Your task to perform on an android device: Is it going to rain this weekend? Image 0: 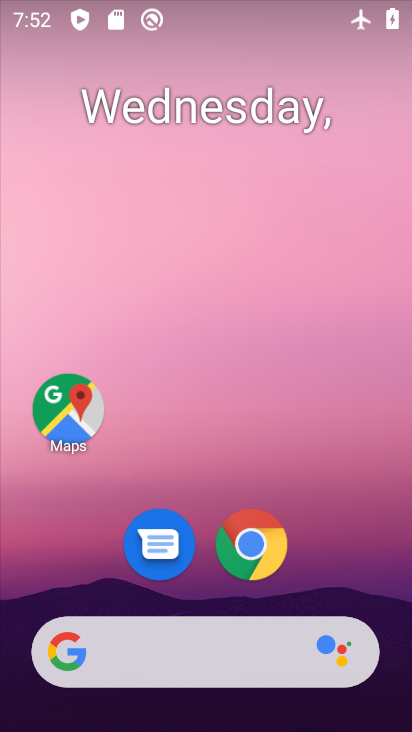
Step 0: drag from (221, 720) to (225, 212)
Your task to perform on an android device: Is it going to rain this weekend? Image 1: 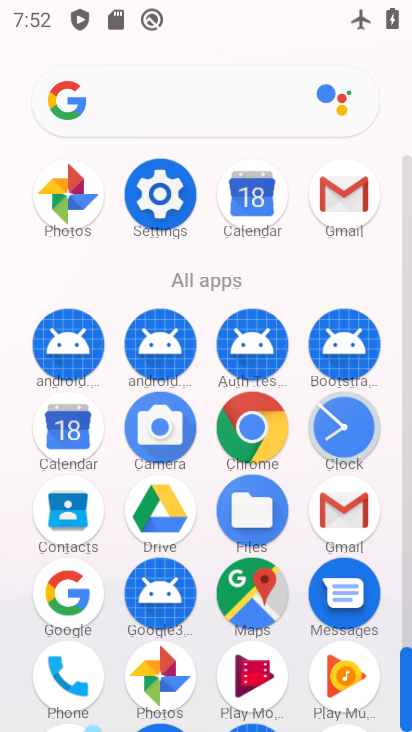
Step 1: click (67, 435)
Your task to perform on an android device: Is it going to rain this weekend? Image 2: 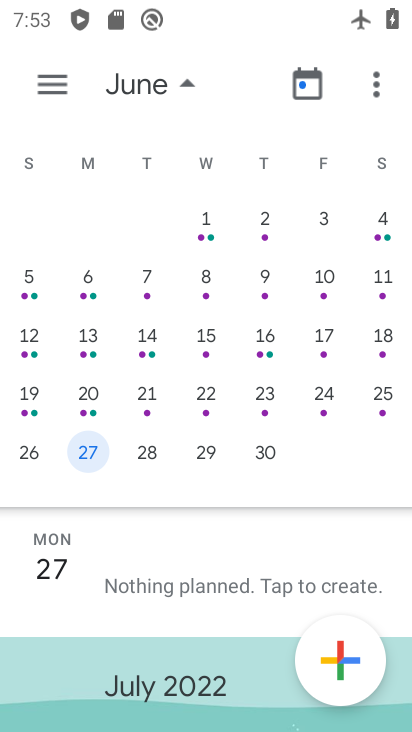
Step 2: press home button
Your task to perform on an android device: Is it going to rain this weekend? Image 3: 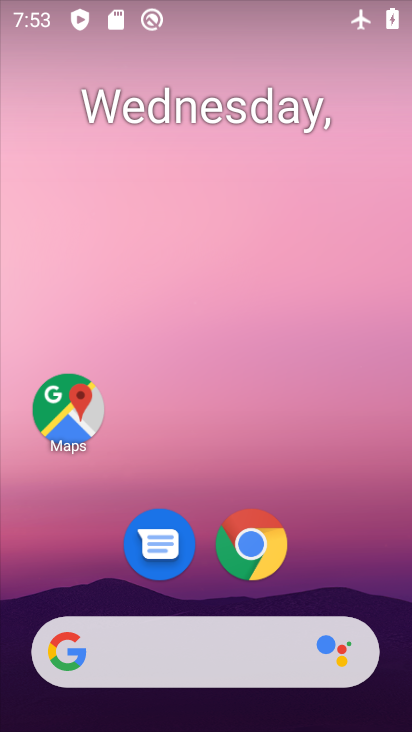
Step 3: drag from (187, 730) to (197, 77)
Your task to perform on an android device: Is it going to rain this weekend? Image 4: 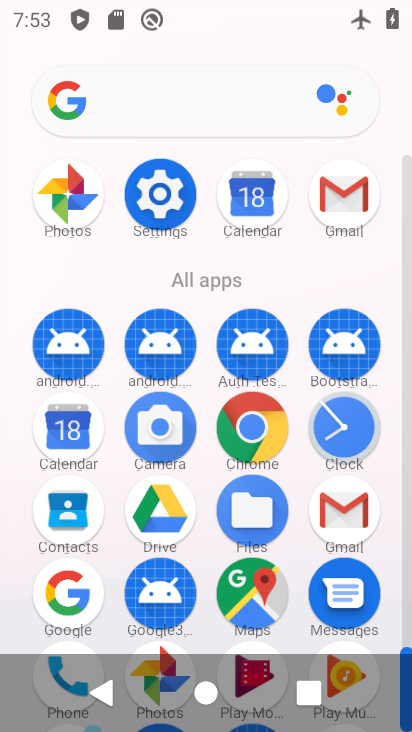
Step 4: click (68, 587)
Your task to perform on an android device: Is it going to rain this weekend? Image 5: 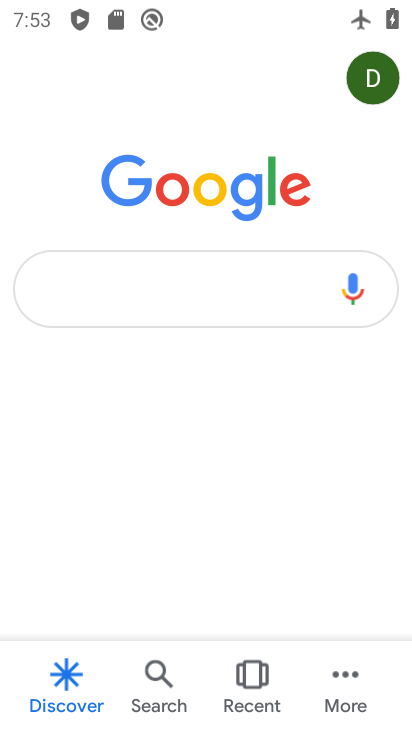
Step 5: click (153, 289)
Your task to perform on an android device: Is it going to rain this weekend? Image 6: 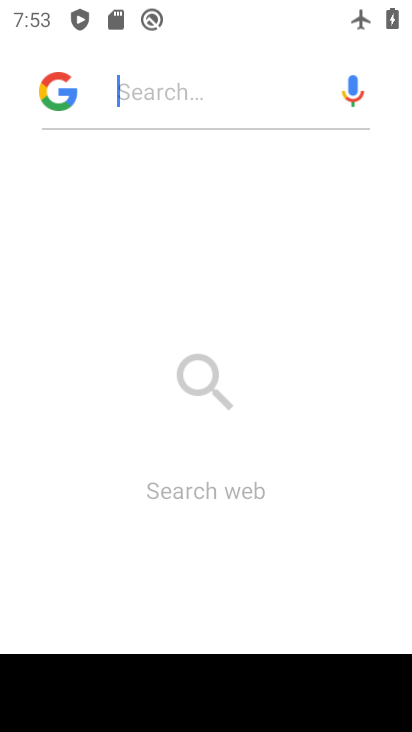
Step 6: task complete